Your task to perform on an android device: Show me popular videos on Youtube Image 0: 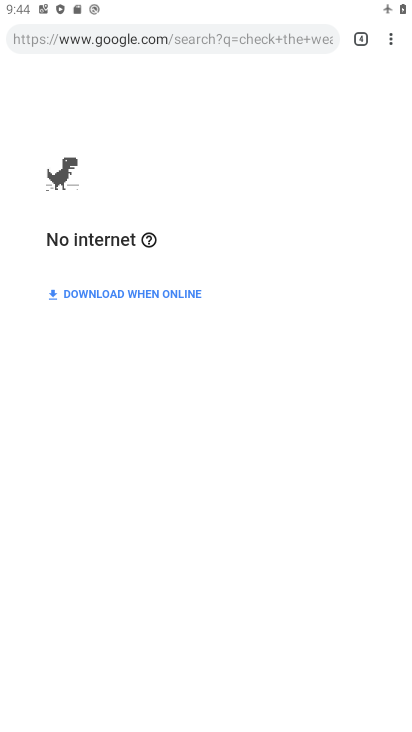
Step 0: press home button
Your task to perform on an android device: Show me popular videos on Youtube Image 1: 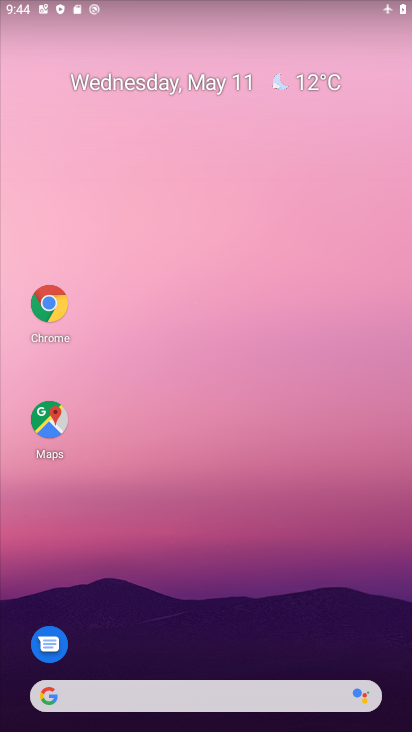
Step 1: drag from (127, 631) to (247, 115)
Your task to perform on an android device: Show me popular videos on Youtube Image 2: 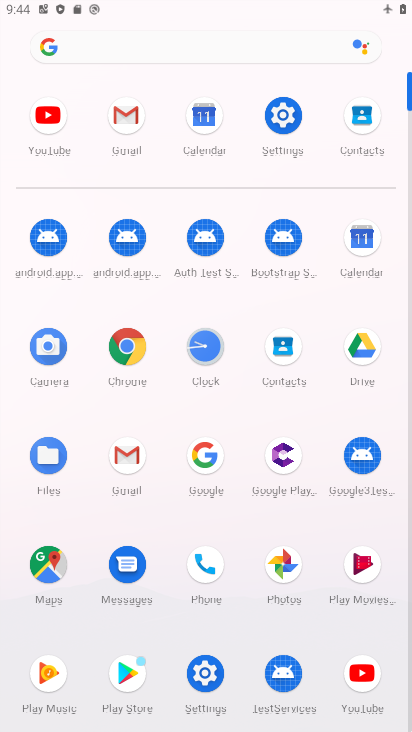
Step 2: click (364, 680)
Your task to perform on an android device: Show me popular videos on Youtube Image 3: 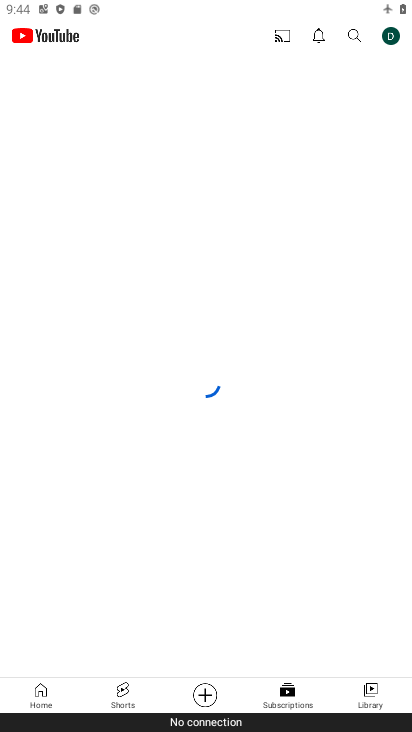
Step 3: click (44, 696)
Your task to perform on an android device: Show me popular videos on Youtube Image 4: 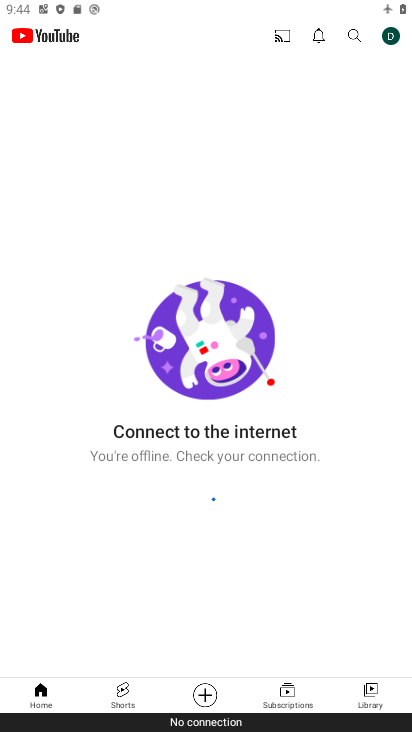
Step 4: task complete